Your task to perform on an android device: What is the news today? Image 0: 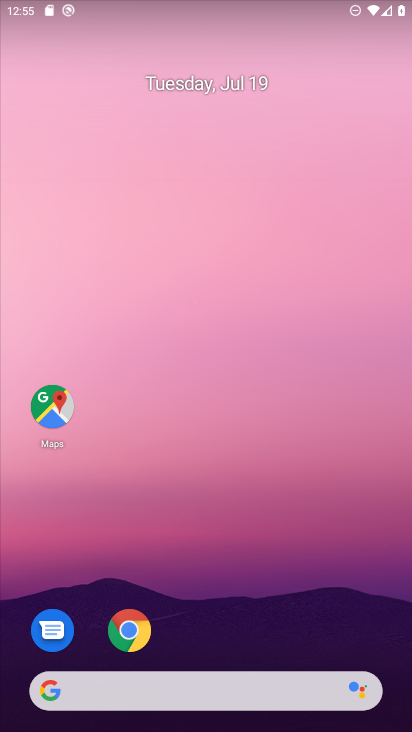
Step 0: press home button
Your task to perform on an android device: What is the news today? Image 1: 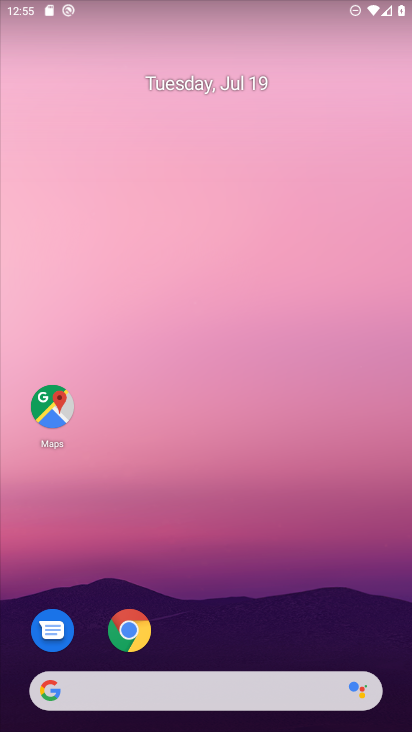
Step 1: click (180, 687)
Your task to perform on an android device: What is the news today? Image 2: 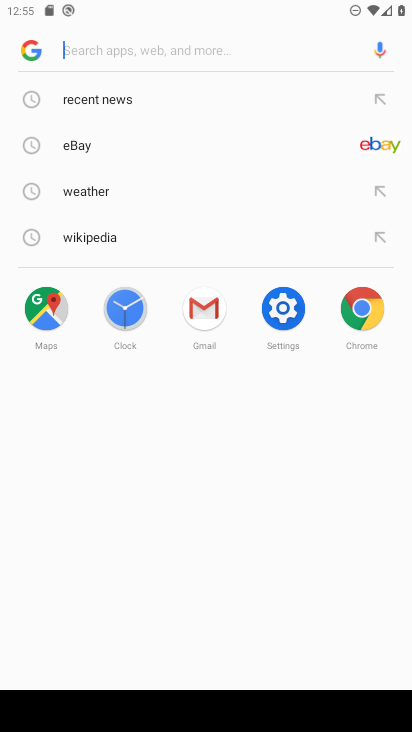
Step 2: click (114, 96)
Your task to perform on an android device: What is the news today? Image 3: 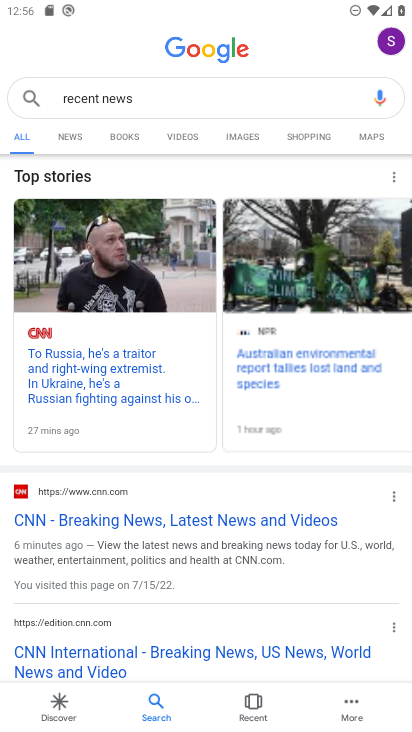
Step 3: click (72, 137)
Your task to perform on an android device: What is the news today? Image 4: 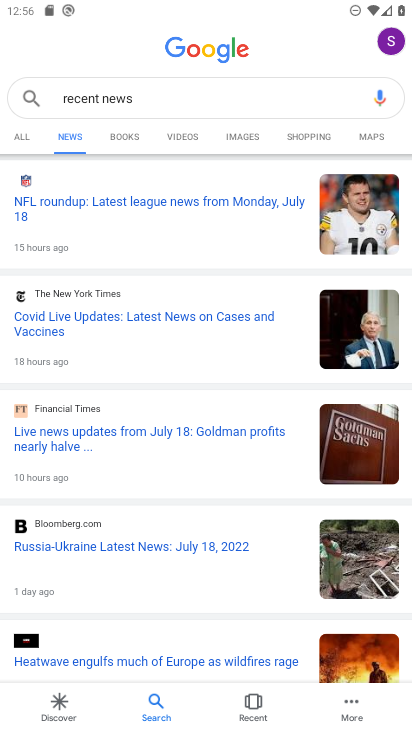
Step 4: task complete